Your task to perform on an android device: Show me productivity apps on the Play Store Image 0: 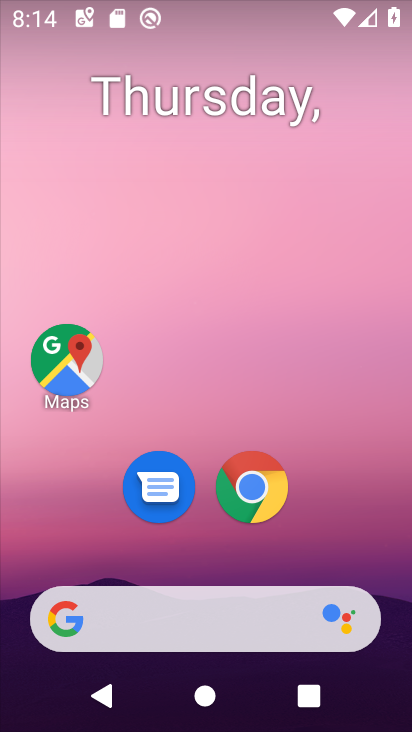
Step 0: drag from (108, 567) to (180, 62)
Your task to perform on an android device: Show me productivity apps on the Play Store Image 1: 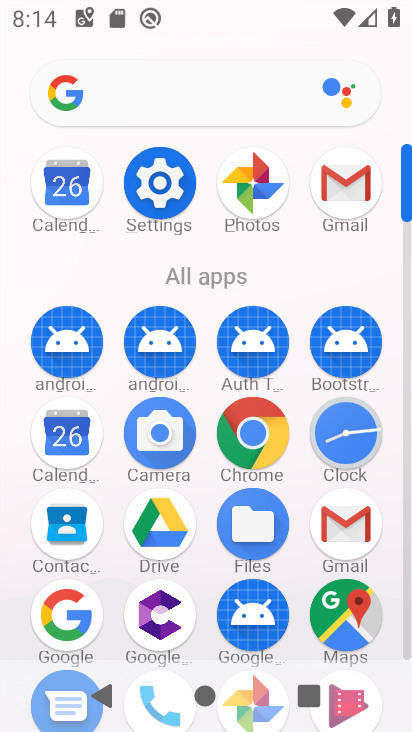
Step 1: drag from (190, 586) to (247, 255)
Your task to perform on an android device: Show me productivity apps on the Play Store Image 2: 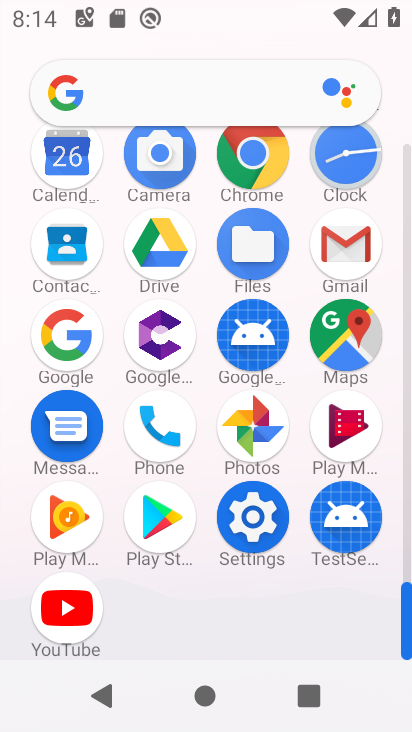
Step 2: click (147, 526)
Your task to perform on an android device: Show me productivity apps on the Play Store Image 3: 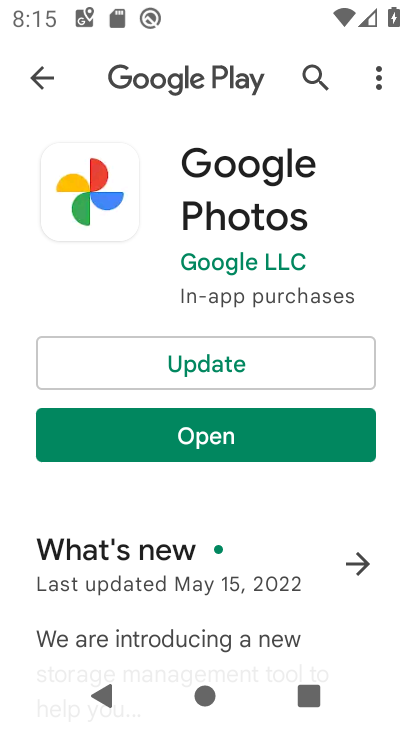
Step 3: click (48, 78)
Your task to perform on an android device: Show me productivity apps on the Play Store Image 4: 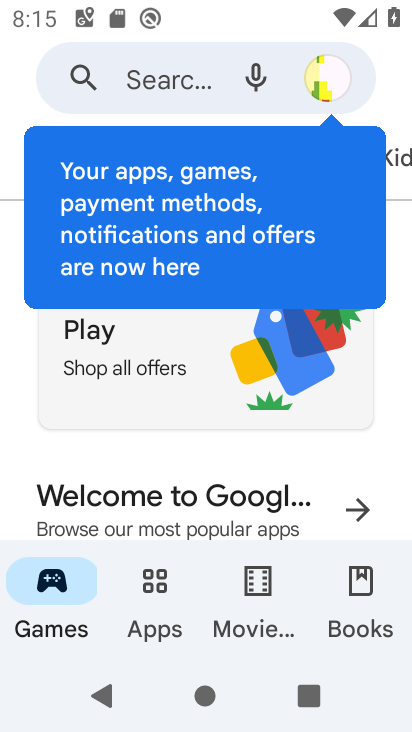
Step 4: click (155, 582)
Your task to perform on an android device: Show me productivity apps on the Play Store Image 5: 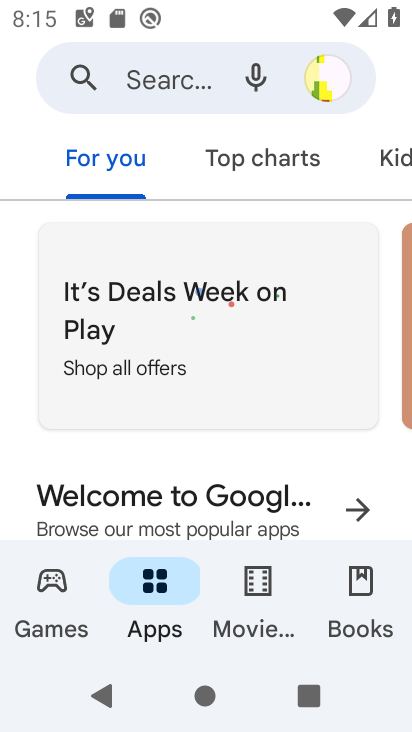
Step 5: drag from (177, 489) to (274, 47)
Your task to perform on an android device: Show me productivity apps on the Play Store Image 6: 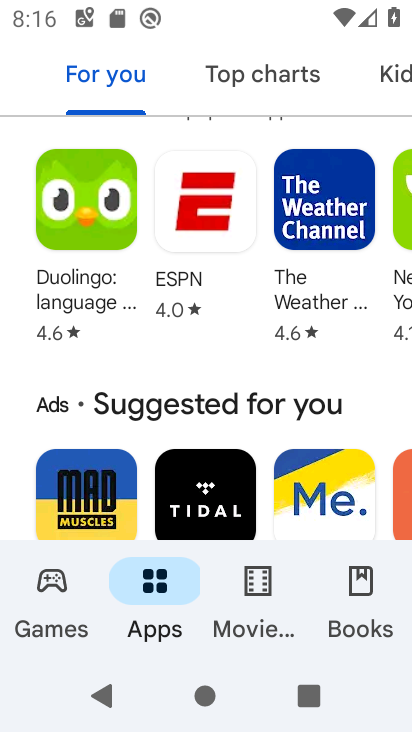
Step 6: drag from (202, 436) to (246, 12)
Your task to perform on an android device: Show me productivity apps on the Play Store Image 7: 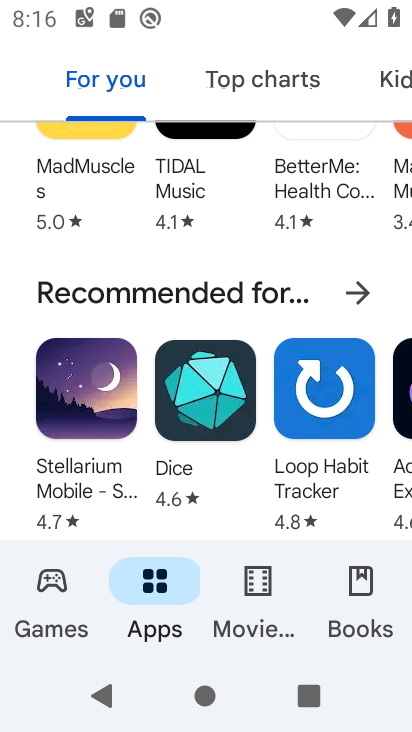
Step 7: drag from (188, 482) to (250, 41)
Your task to perform on an android device: Show me productivity apps on the Play Store Image 8: 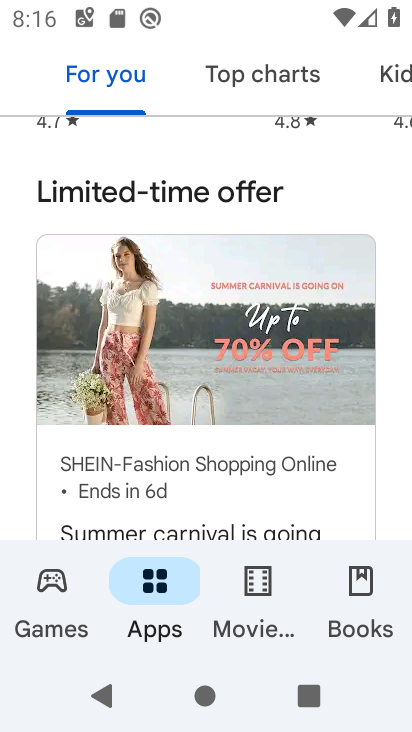
Step 8: drag from (200, 489) to (270, 7)
Your task to perform on an android device: Show me productivity apps on the Play Store Image 9: 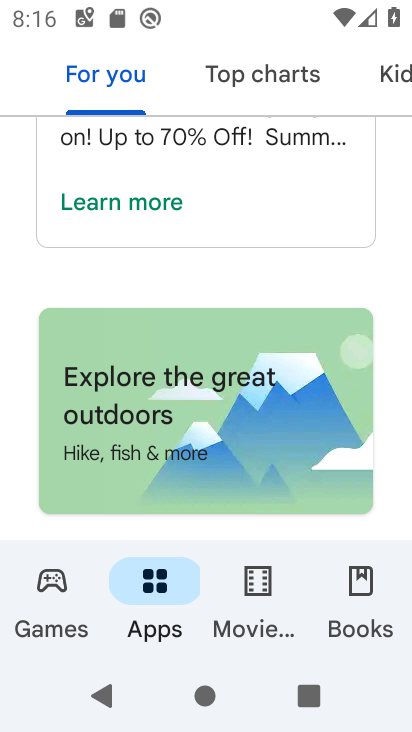
Step 9: drag from (199, 489) to (277, 3)
Your task to perform on an android device: Show me productivity apps on the Play Store Image 10: 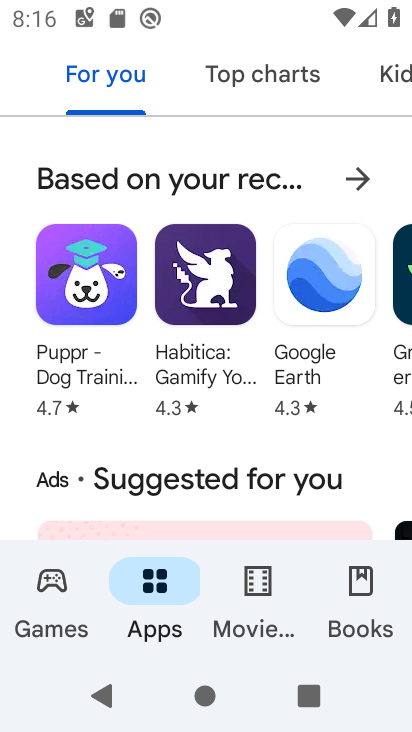
Step 10: drag from (244, 495) to (336, 12)
Your task to perform on an android device: Show me productivity apps on the Play Store Image 11: 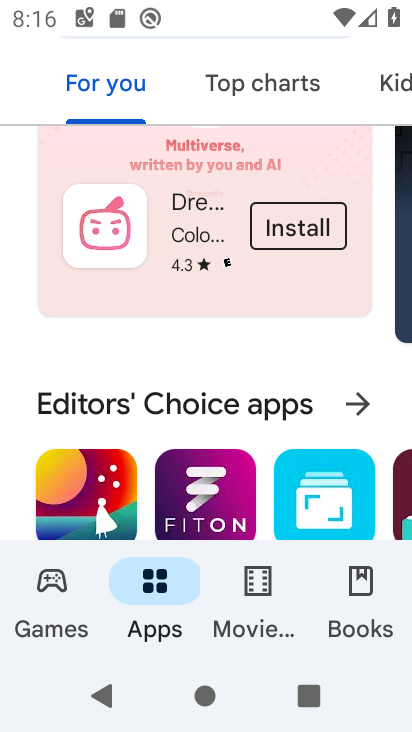
Step 11: drag from (200, 568) to (312, 42)
Your task to perform on an android device: Show me productivity apps on the Play Store Image 12: 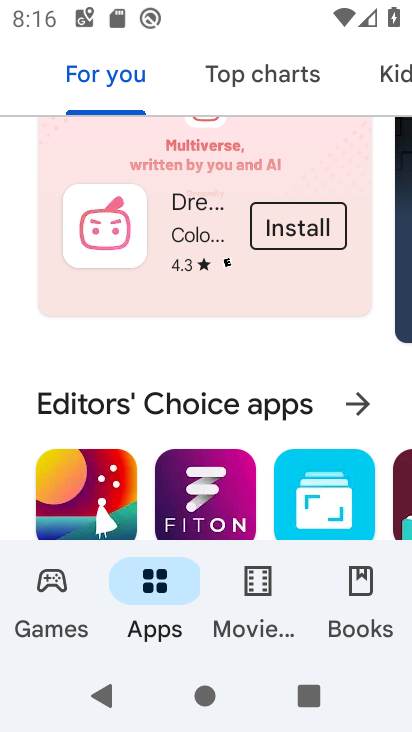
Step 12: drag from (209, 509) to (267, 70)
Your task to perform on an android device: Show me productivity apps on the Play Store Image 13: 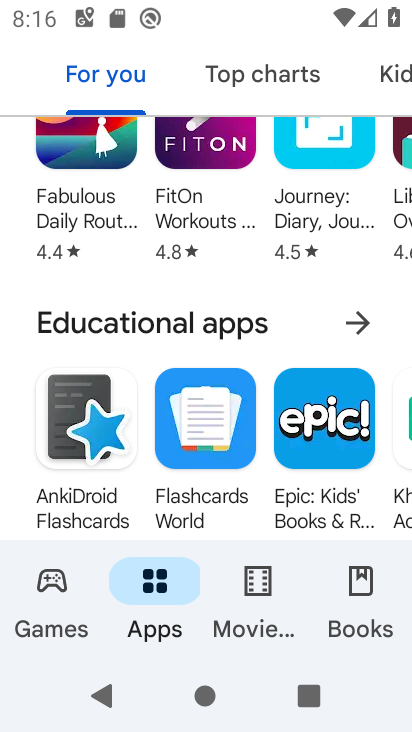
Step 13: drag from (211, 441) to (269, 25)
Your task to perform on an android device: Show me productivity apps on the Play Store Image 14: 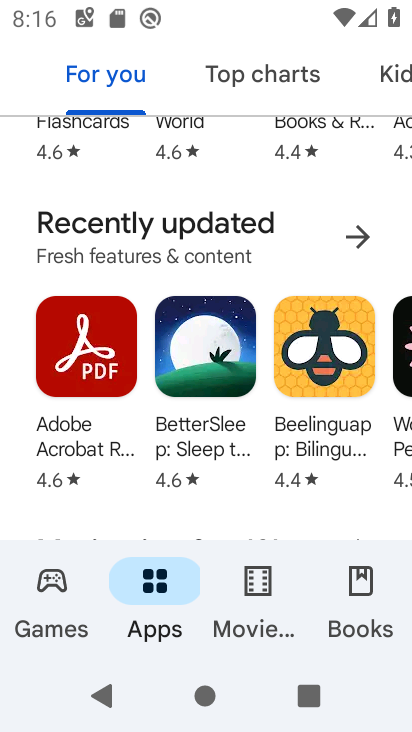
Step 14: drag from (168, 522) to (267, 4)
Your task to perform on an android device: Show me productivity apps on the Play Store Image 15: 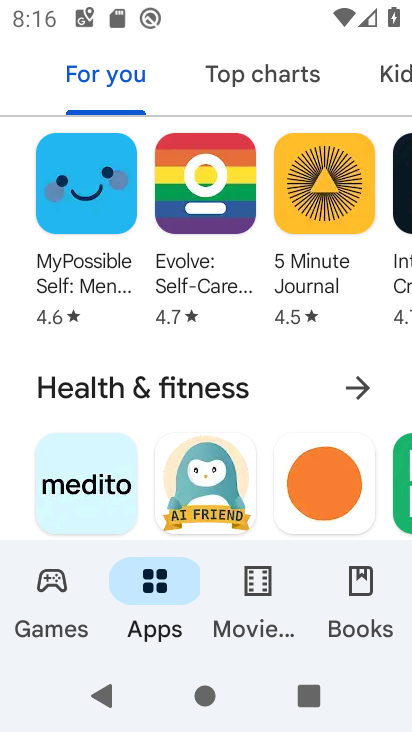
Step 15: drag from (221, 510) to (296, 13)
Your task to perform on an android device: Show me productivity apps on the Play Store Image 16: 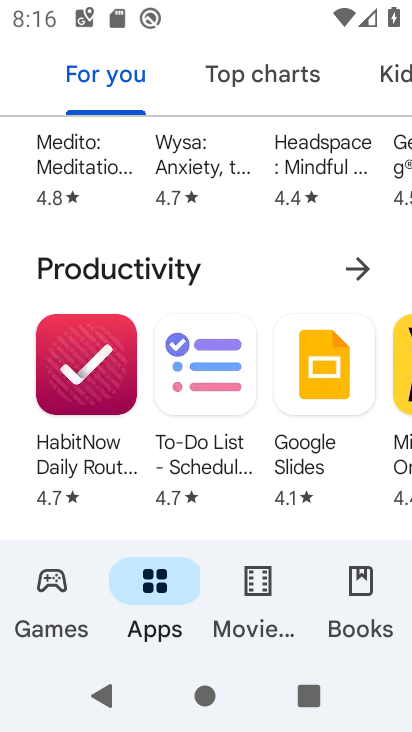
Step 16: drag from (235, 491) to (236, 443)
Your task to perform on an android device: Show me productivity apps on the Play Store Image 17: 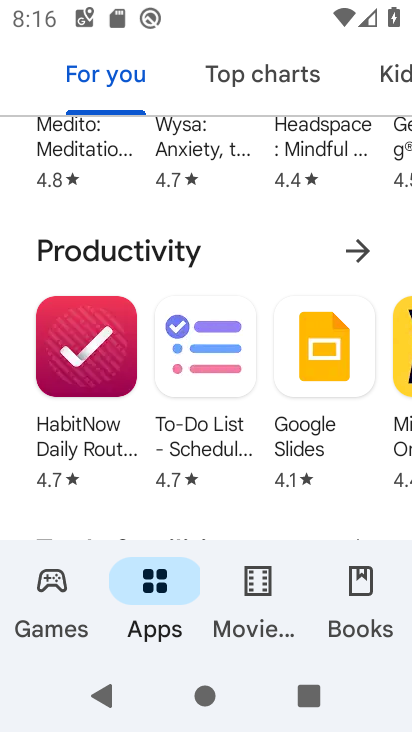
Step 17: click (355, 250)
Your task to perform on an android device: Show me productivity apps on the Play Store Image 18: 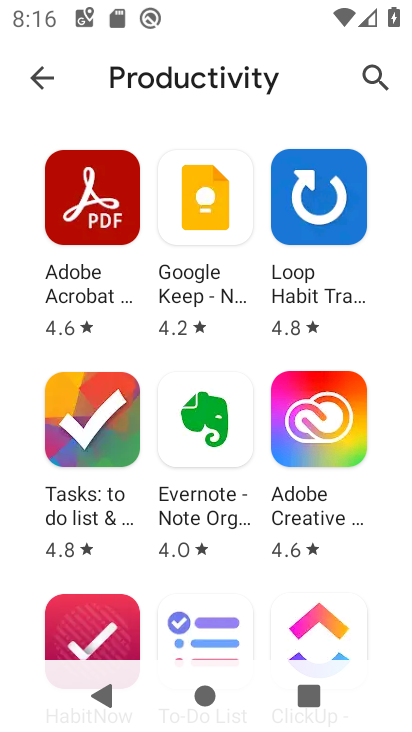
Step 18: task complete